Your task to perform on an android device: Open battery settings Image 0: 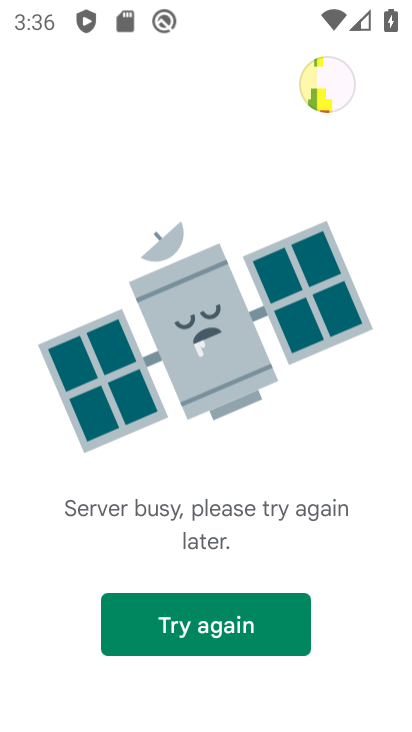
Step 0: press home button
Your task to perform on an android device: Open battery settings Image 1: 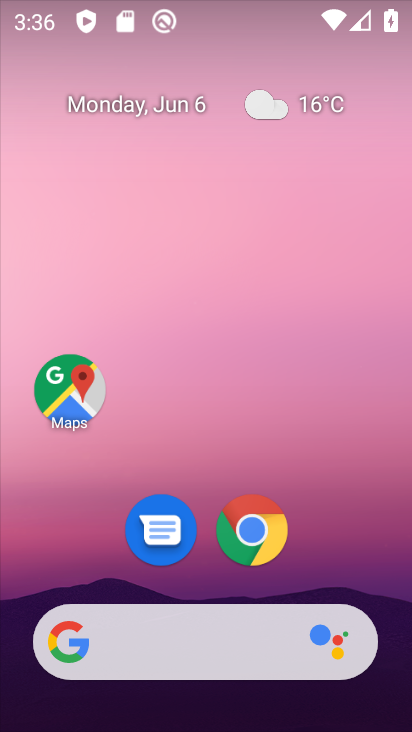
Step 1: drag from (341, 600) to (321, 154)
Your task to perform on an android device: Open battery settings Image 2: 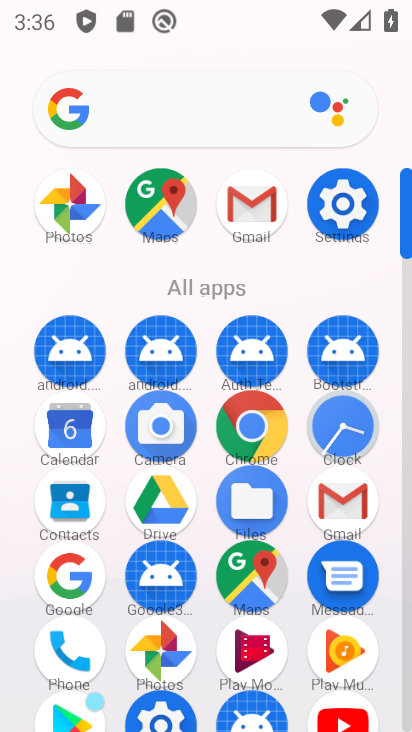
Step 2: click (322, 201)
Your task to perform on an android device: Open battery settings Image 3: 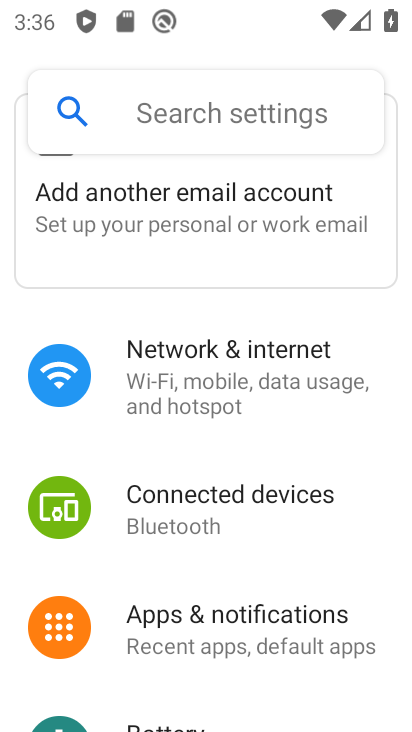
Step 3: drag from (193, 662) to (211, 318)
Your task to perform on an android device: Open battery settings Image 4: 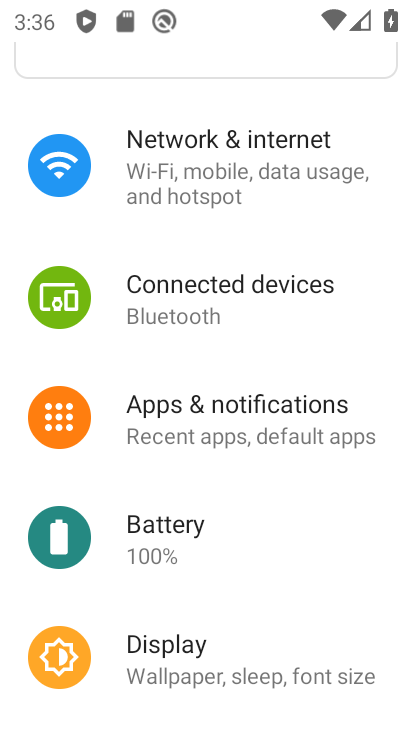
Step 4: click (151, 508)
Your task to perform on an android device: Open battery settings Image 5: 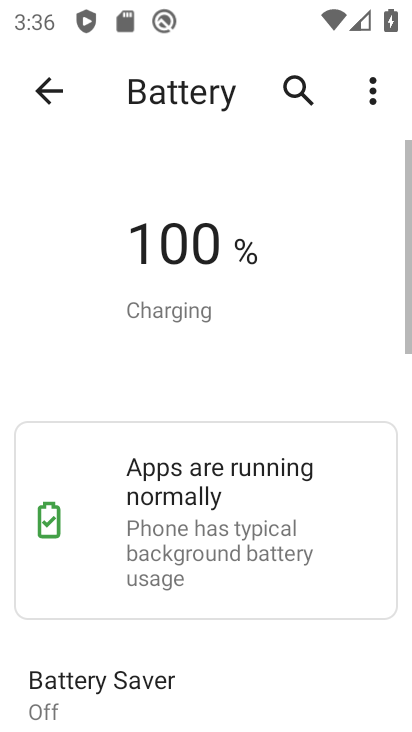
Step 5: task complete